Your task to perform on an android device: open the mobile data screen to see how much data has been used Image 0: 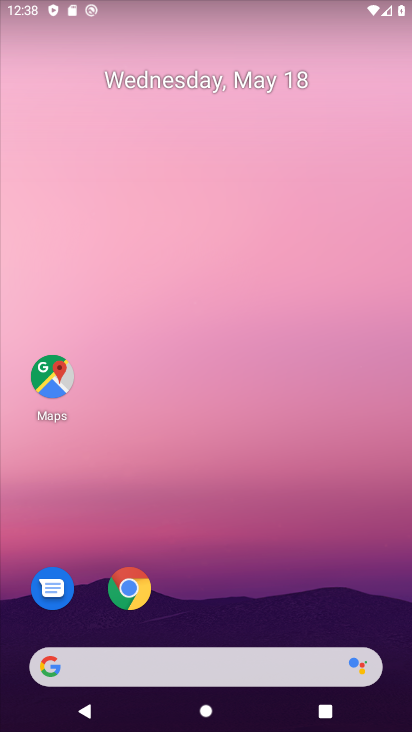
Step 0: drag from (364, 565) to (357, 96)
Your task to perform on an android device: open the mobile data screen to see how much data has been used Image 1: 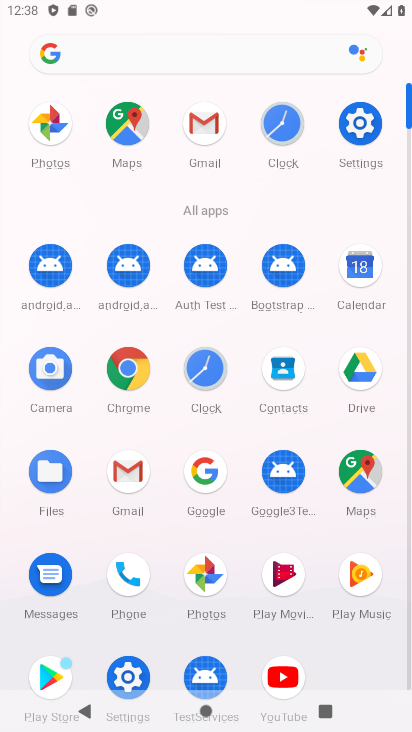
Step 1: click (353, 119)
Your task to perform on an android device: open the mobile data screen to see how much data has been used Image 2: 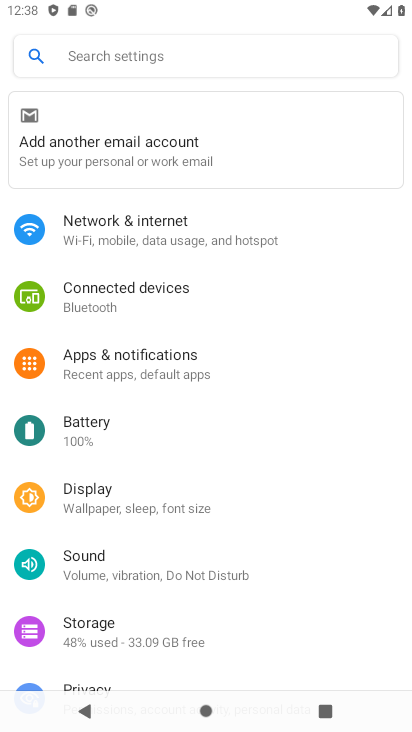
Step 2: drag from (334, 578) to (331, 373)
Your task to perform on an android device: open the mobile data screen to see how much data has been used Image 3: 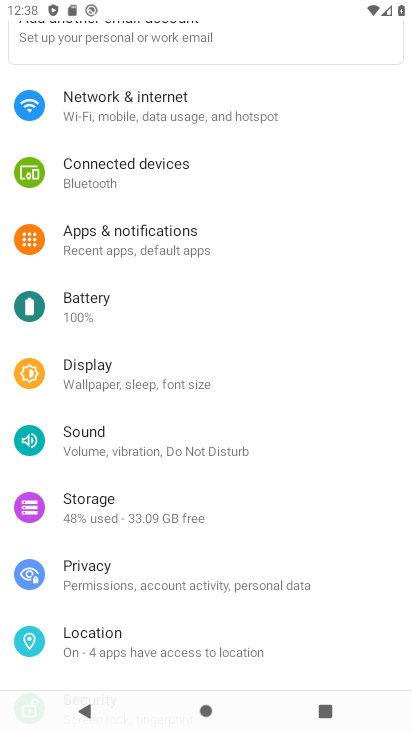
Step 3: drag from (325, 634) to (347, 419)
Your task to perform on an android device: open the mobile data screen to see how much data has been used Image 4: 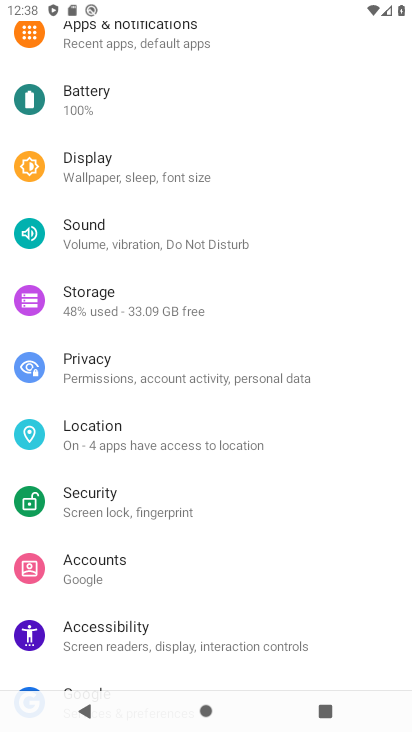
Step 4: drag from (329, 568) to (339, 349)
Your task to perform on an android device: open the mobile data screen to see how much data has been used Image 5: 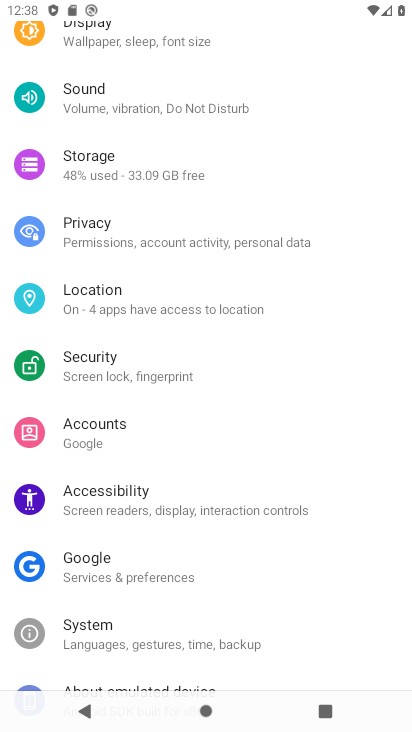
Step 5: drag from (345, 604) to (348, 396)
Your task to perform on an android device: open the mobile data screen to see how much data has been used Image 6: 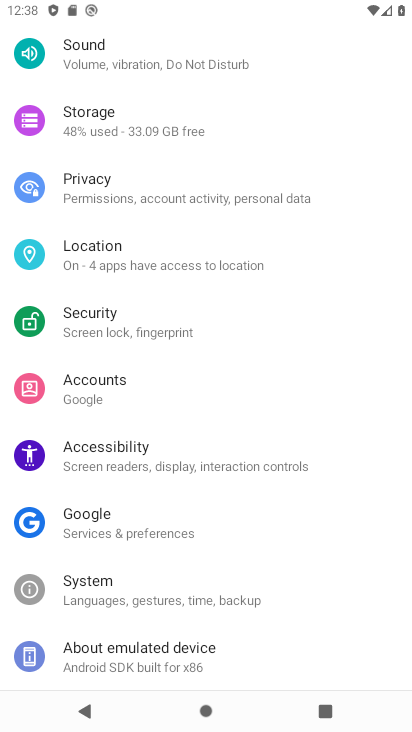
Step 6: drag from (342, 263) to (343, 429)
Your task to perform on an android device: open the mobile data screen to see how much data has been used Image 7: 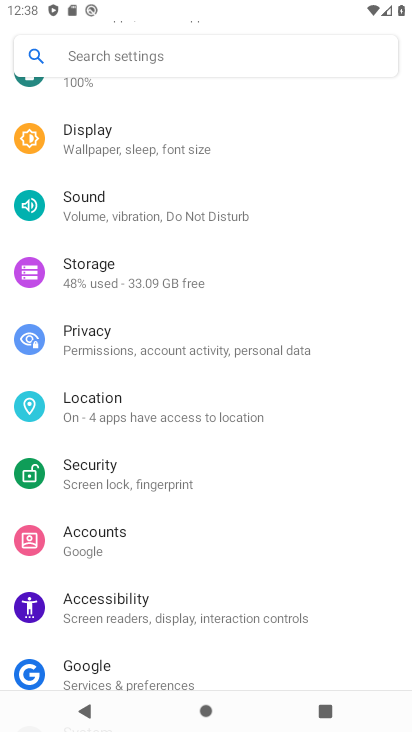
Step 7: drag from (336, 223) to (332, 400)
Your task to perform on an android device: open the mobile data screen to see how much data has been used Image 8: 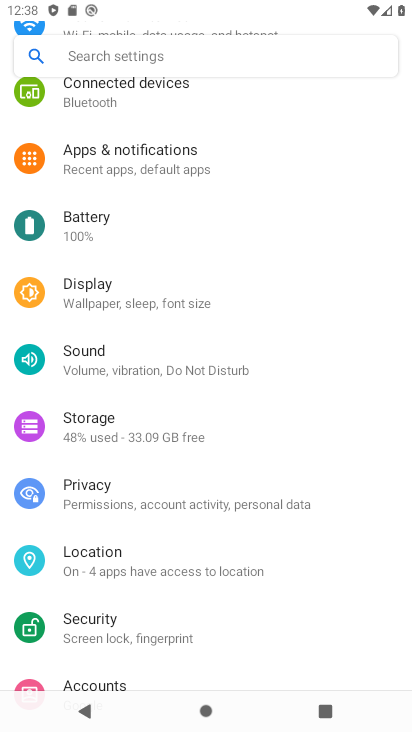
Step 8: drag from (331, 235) to (318, 409)
Your task to perform on an android device: open the mobile data screen to see how much data has been used Image 9: 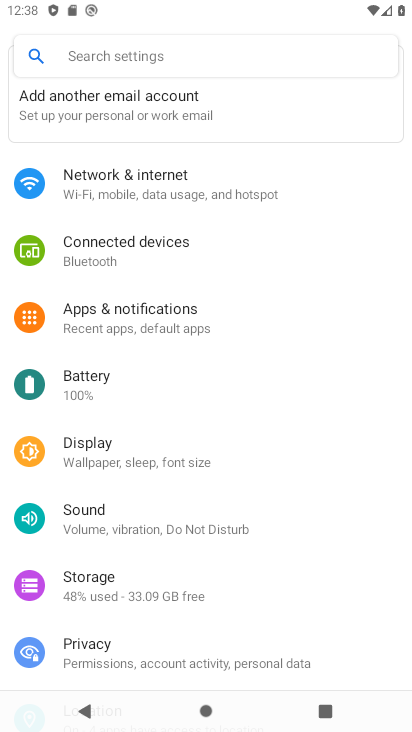
Step 9: drag from (313, 239) to (300, 427)
Your task to perform on an android device: open the mobile data screen to see how much data has been used Image 10: 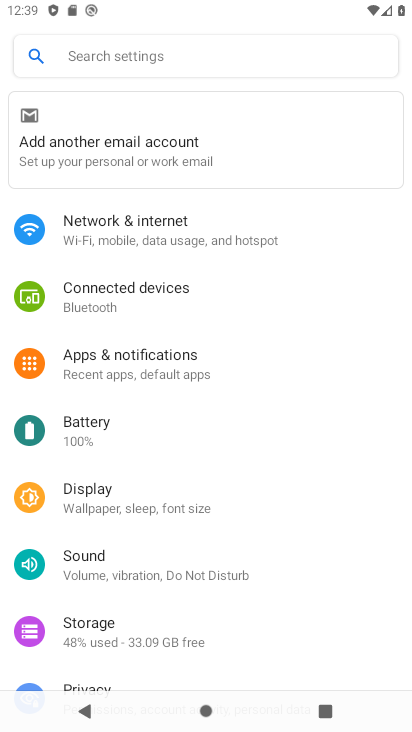
Step 10: click (188, 233)
Your task to perform on an android device: open the mobile data screen to see how much data has been used Image 11: 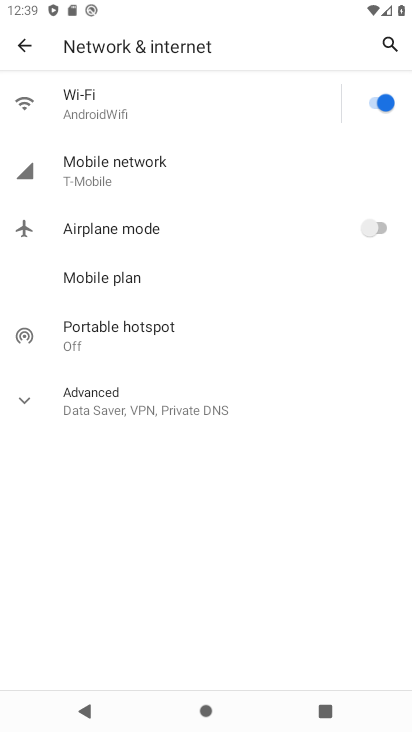
Step 11: click (91, 170)
Your task to perform on an android device: open the mobile data screen to see how much data has been used Image 12: 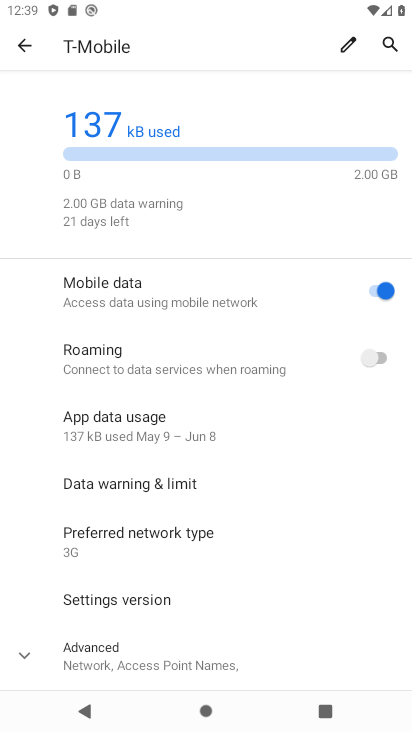
Step 12: drag from (269, 569) to (283, 321)
Your task to perform on an android device: open the mobile data screen to see how much data has been used Image 13: 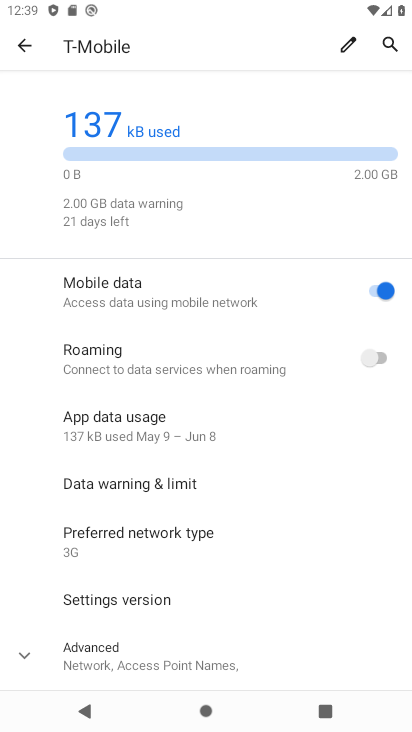
Step 13: click (135, 418)
Your task to perform on an android device: open the mobile data screen to see how much data has been used Image 14: 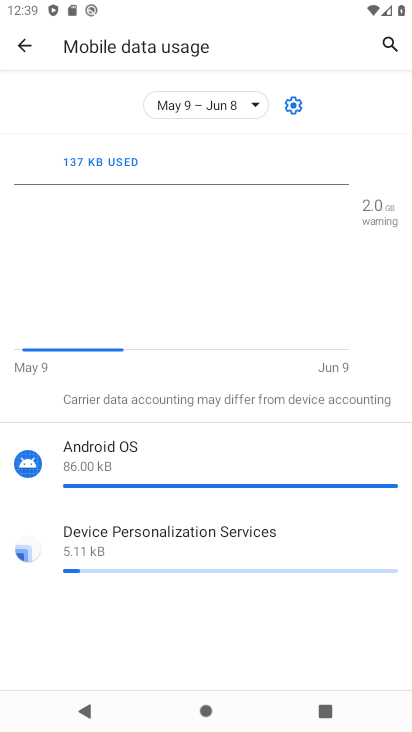
Step 14: task complete